Your task to perform on an android device: stop showing notifications on the lock screen Image 0: 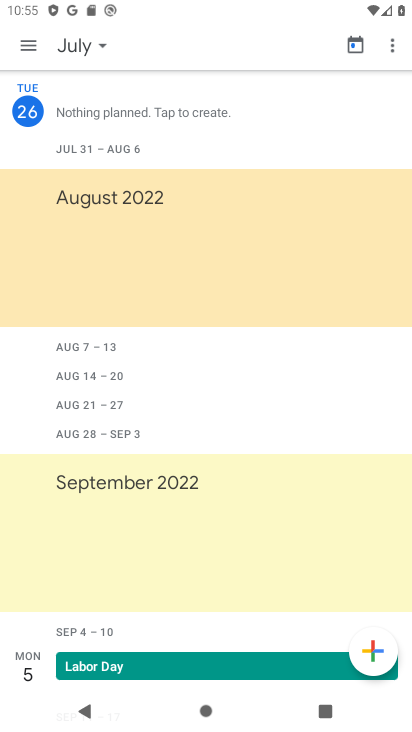
Step 0: press home button
Your task to perform on an android device: stop showing notifications on the lock screen Image 1: 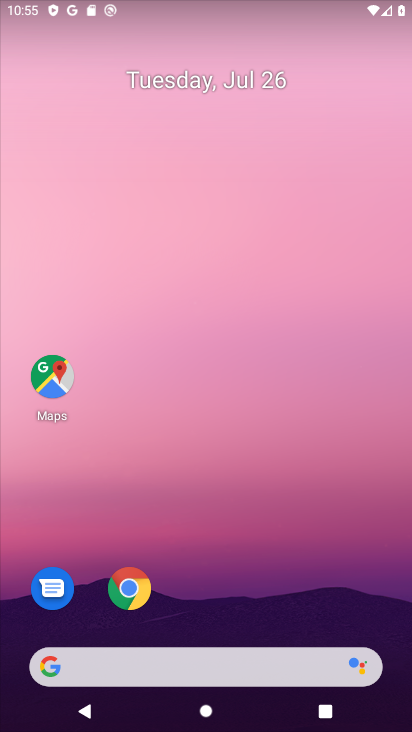
Step 1: drag from (231, 632) to (260, 46)
Your task to perform on an android device: stop showing notifications on the lock screen Image 2: 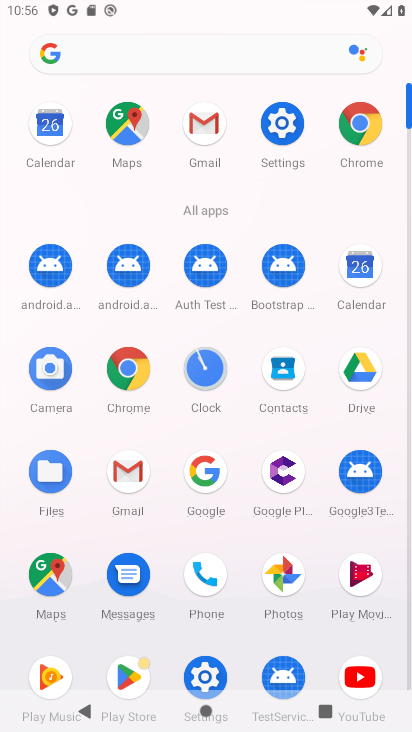
Step 2: click (283, 121)
Your task to perform on an android device: stop showing notifications on the lock screen Image 3: 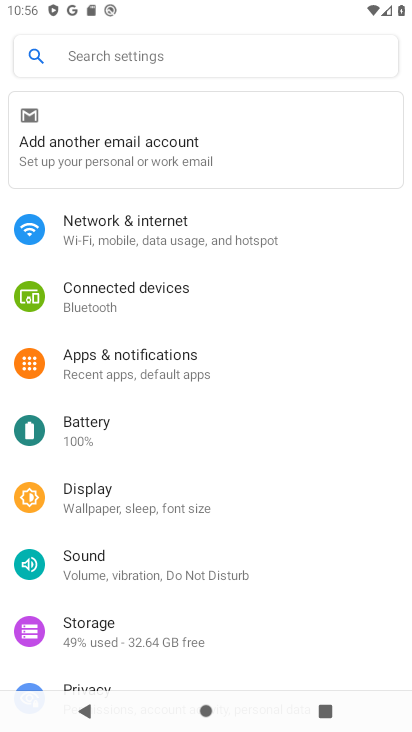
Step 3: click (155, 366)
Your task to perform on an android device: stop showing notifications on the lock screen Image 4: 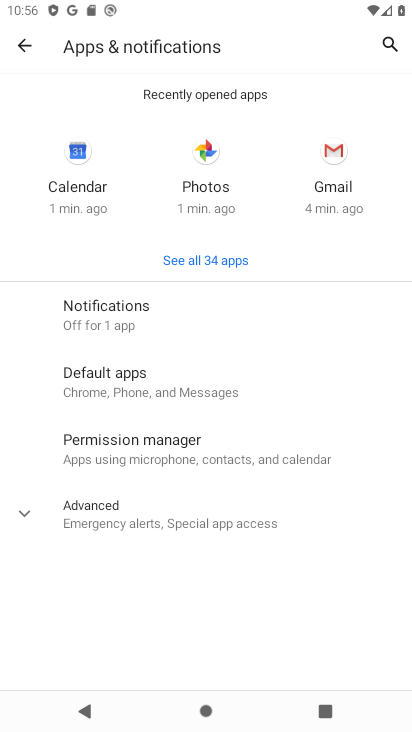
Step 4: click (163, 311)
Your task to perform on an android device: stop showing notifications on the lock screen Image 5: 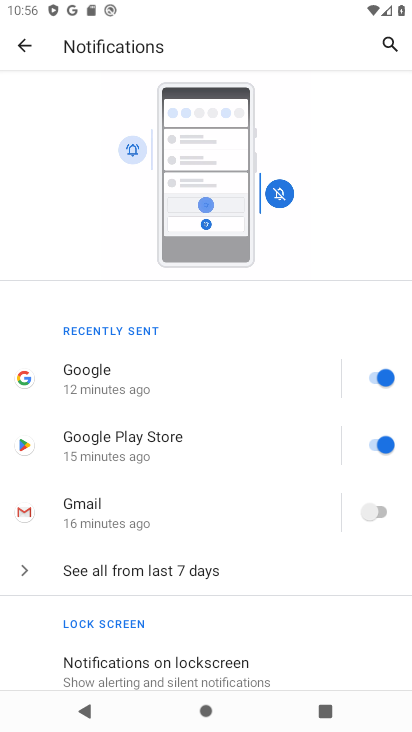
Step 5: click (211, 668)
Your task to perform on an android device: stop showing notifications on the lock screen Image 6: 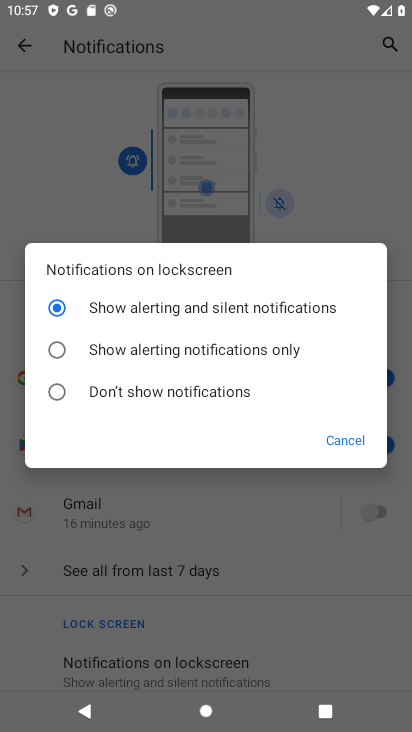
Step 6: click (63, 382)
Your task to perform on an android device: stop showing notifications on the lock screen Image 7: 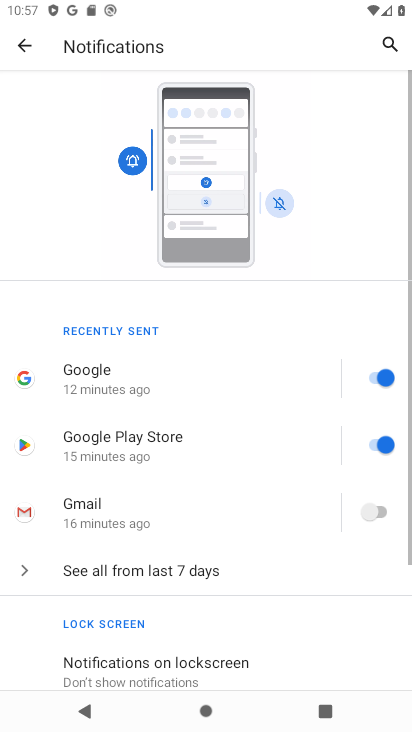
Step 7: task complete